Your task to perform on an android device: Open Android settings Image 0: 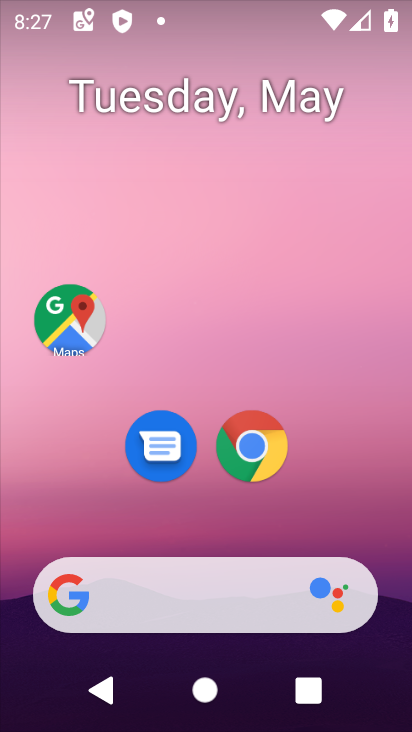
Step 0: drag from (368, 560) to (330, 9)
Your task to perform on an android device: Open Android settings Image 1: 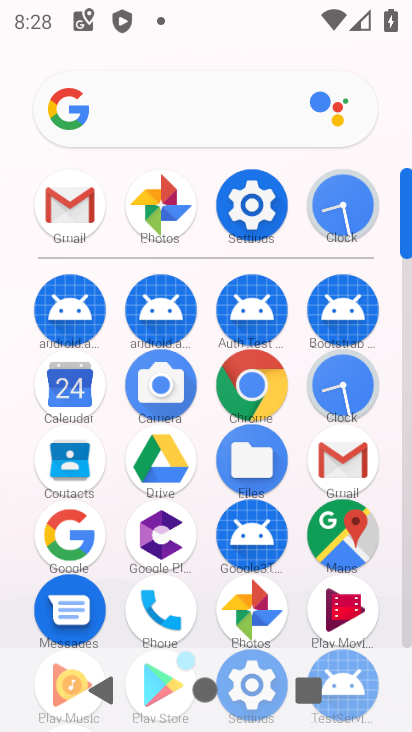
Step 1: click (257, 210)
Your task to perform on an android device: Open Android settings Image 2: 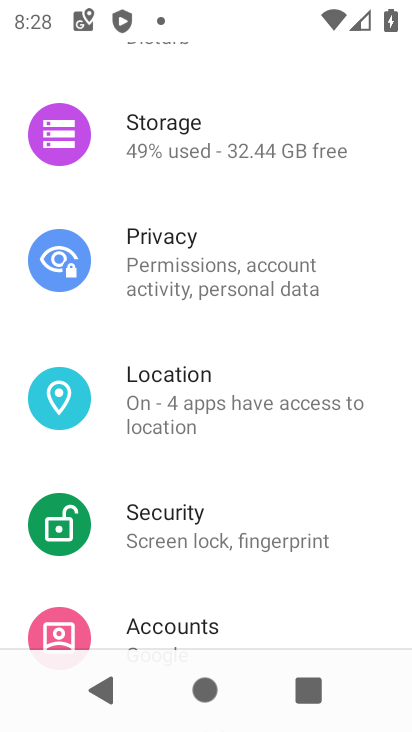
Step 2: task complete